Your task to perform on an android device: Open Chrome and go to settings Image 0: 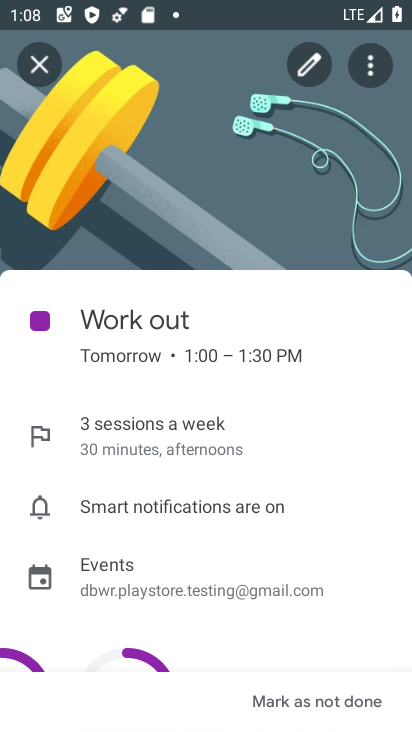
Step 0: press home button
Your task to perform on an android device: Open Chrome and go to settings Image 1: 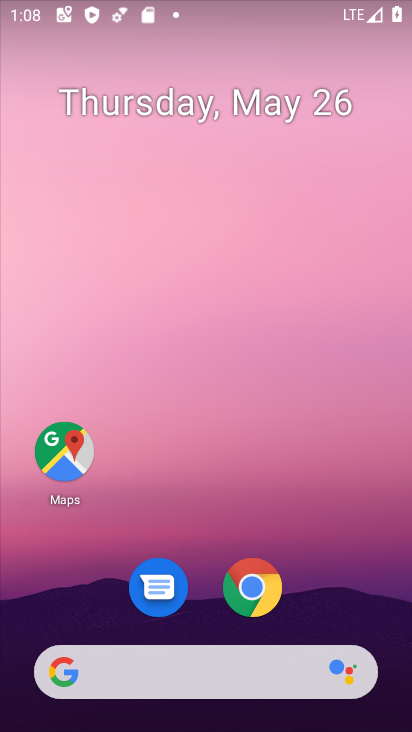
Step 1: drag from (388, 593) to (362, 261)
Your task to perform on an android device: Open Chrome and go to settings Image 2: 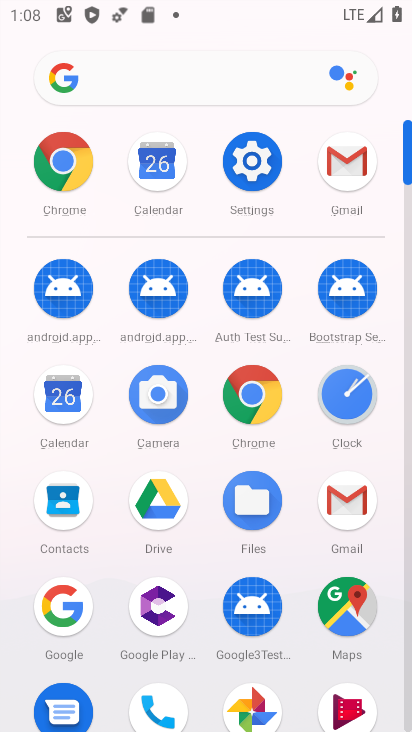
Step 2: click (245, 407)
Your task to perform on an android device: Open Chrome and go to settings Image 3: 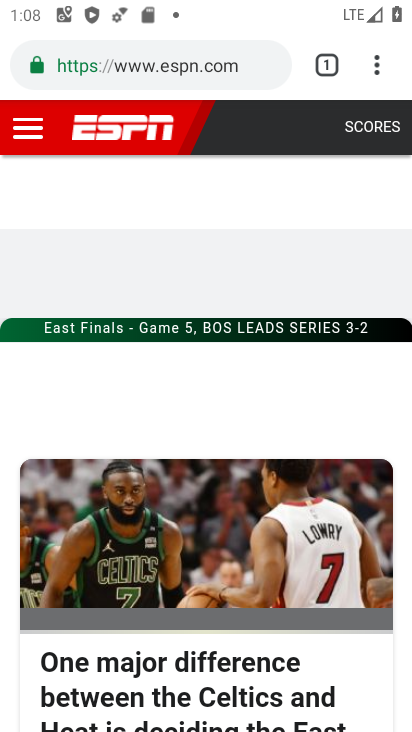
Step 3: click (377, 78)
Your task to perform on an android device: Open Chrome and go to settings Image 4: 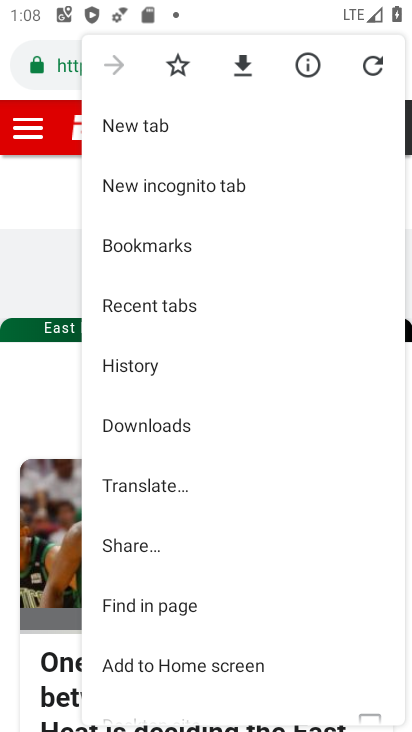
Step 4: drag from (326, 527) to (326, 420)
Your task to perform on an android device: Open Chrome and go to settings Image 5: 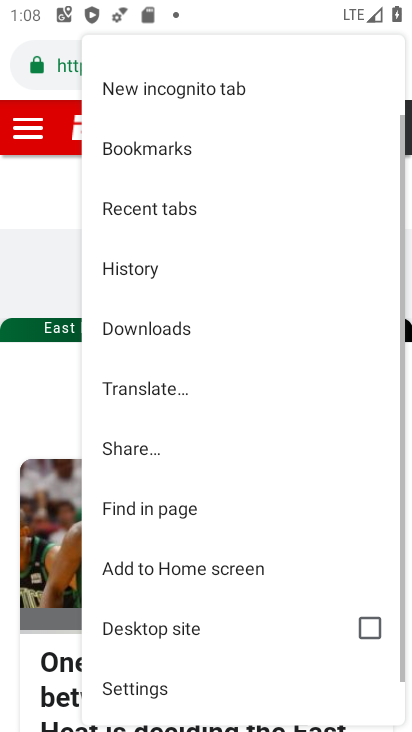
Step 5: drag from (294, 640) to (283, 498)
Your task to perform on an android device: Open Chrome and go to settings Image 6: 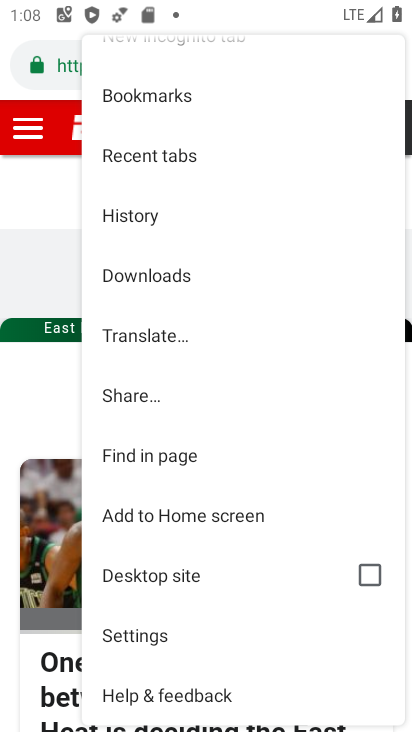
Step 6: click (161, 652)
Your task to perform on an android device: Open Chrome and go to settings Image 7: 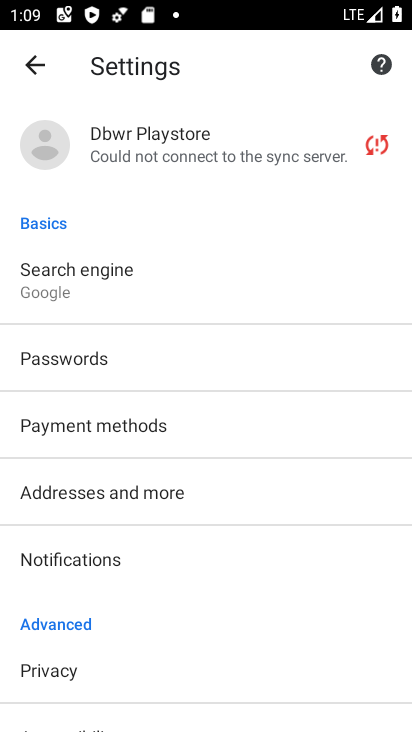
Step 7: task complete